Your task to perform on an android device: toggle javascript in the chrome app Image 0: 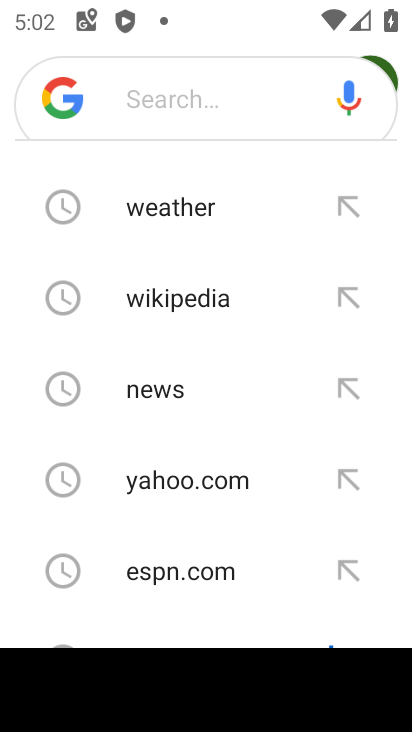
Step 0: press home button
Your task to perform on an android device: toggle javascript in the chrome app Image 1: 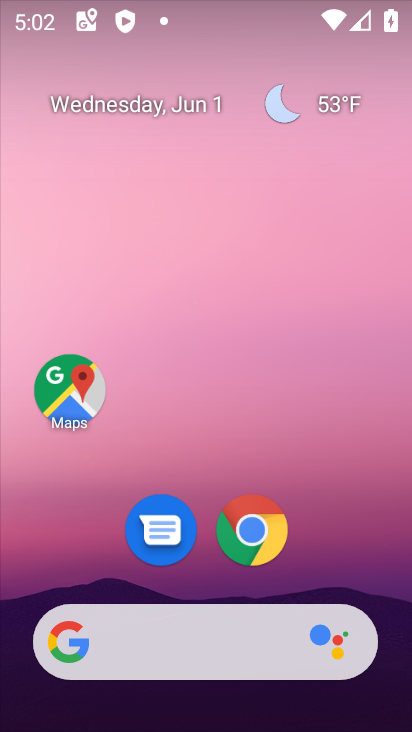
Step 1: click (254, 528)
Your task to perform on an android device: toggle javascript in the chrome app Image 2: 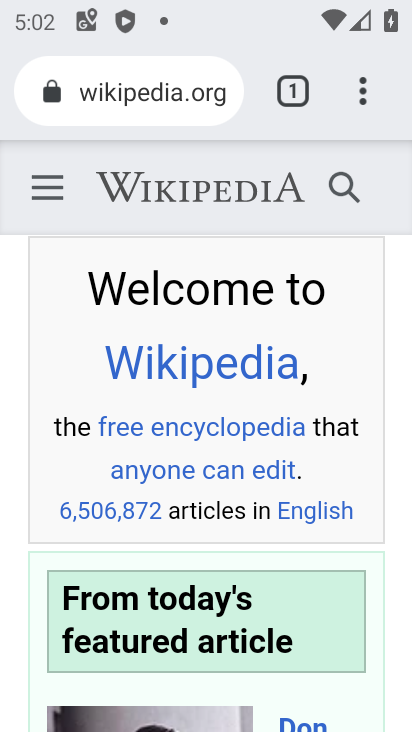
Step 2: click (360, 95)
Your task to perform on an android device: toggle javascript in the chrome app Image 3: 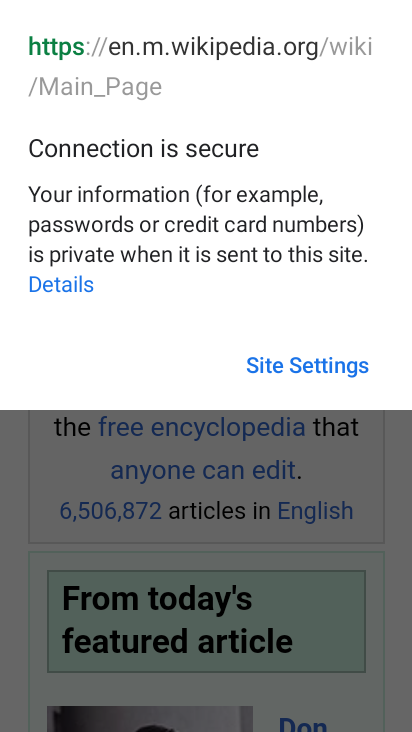
Step 3: click (398, 429)
Your task to perform on an android device: toggle javascript in the chrome app Image 4: 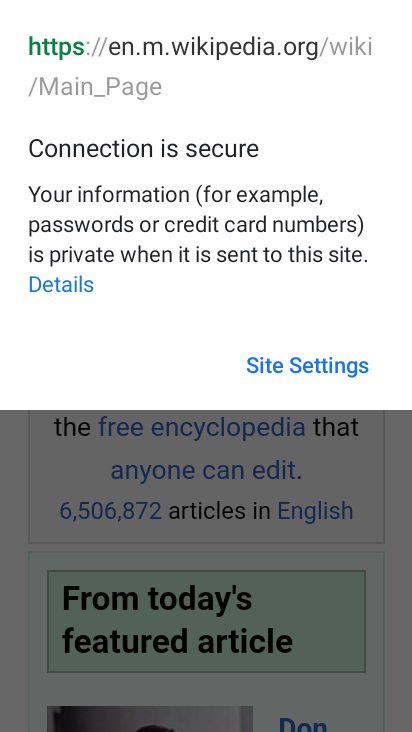
Step 4: click (371, 461)
Your task to perform on an android device: toggle javascript in the chrome app Image 5: 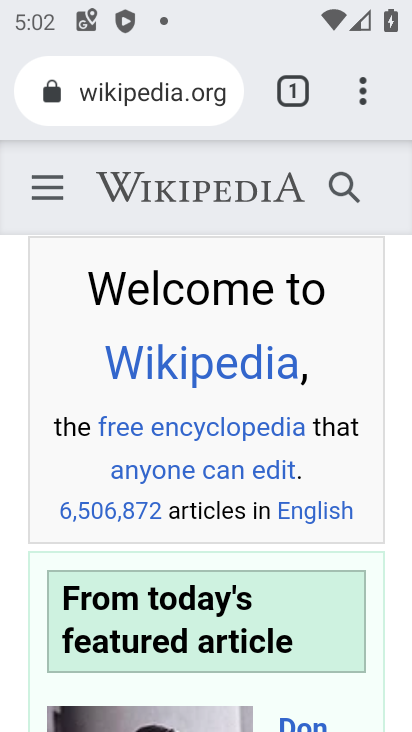
Step 5: click (363, 95)
Your task to perform on an android device: toggle javascript in the chrome app Image 6: 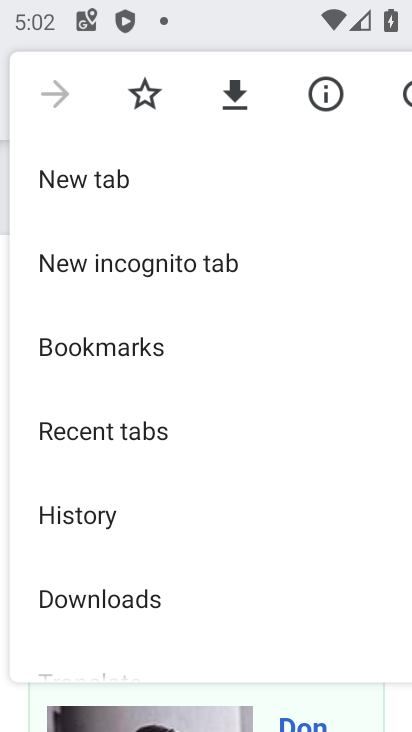
Step 6: drag from (134, 507) to (134, 301)
Your task to perform on an android device: toggle javascript in the chrome app Image 7: 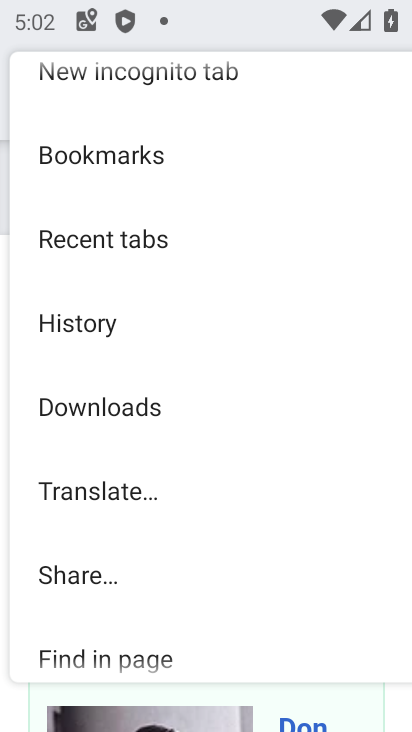
Step 7: drag from (130, 609) to (140, 270)
Your task to perform on an android device: toggle javascript in the chrome app Image 8: 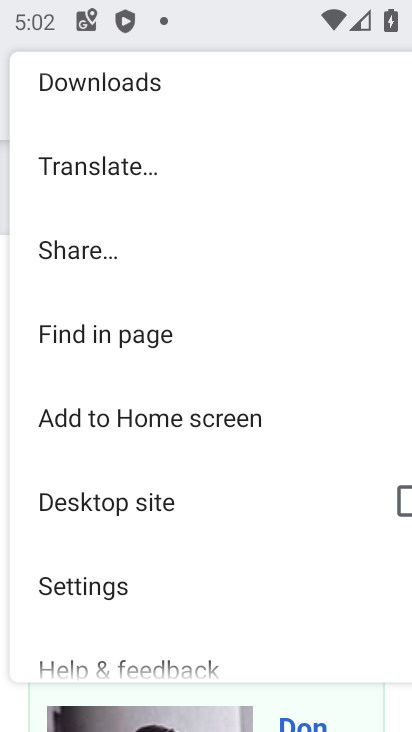
Step 8: click (112, 595)
Your task to perform on an android device: toggle javascript in the chrome app Image 9: 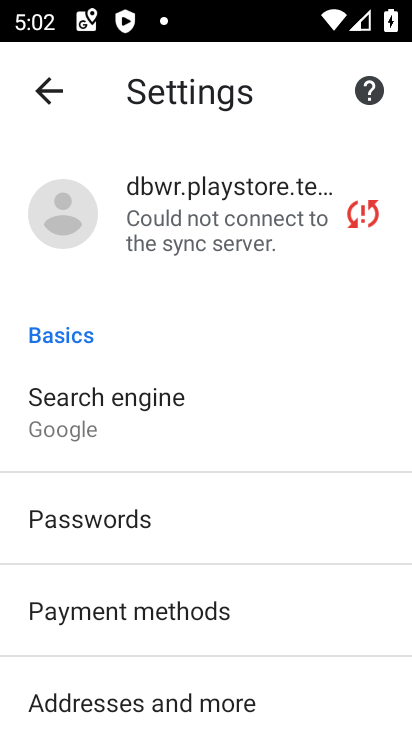
Step 9: drag from (191, 641) to (193, 340)
Your task to perform on an android device: toggle javascript in the chrome app Image 10: 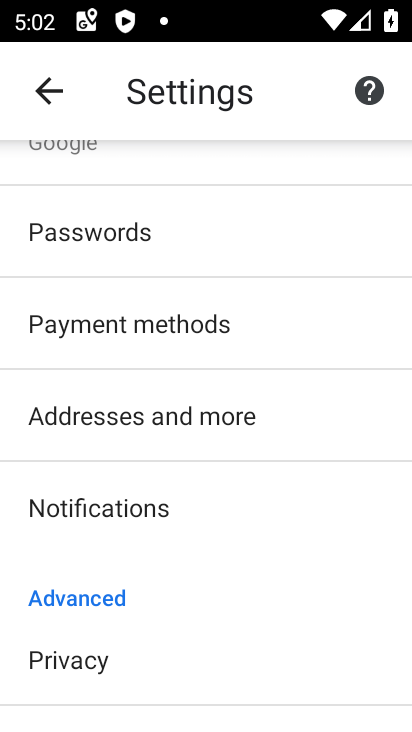
Step 10: drag from (171, 610) to (174, 310)
Your task to perform on an android device: toggle javascript in the chrome app Image 11: 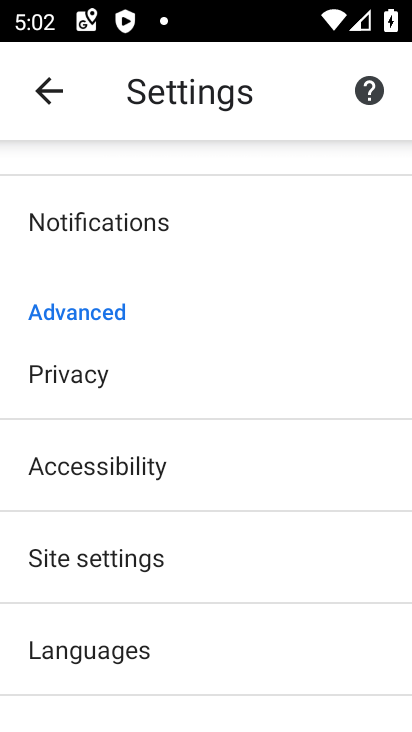
Step 11: click (128, 571)
Your task to perform on an android device: toggle javascript in the chrome app Image 12: 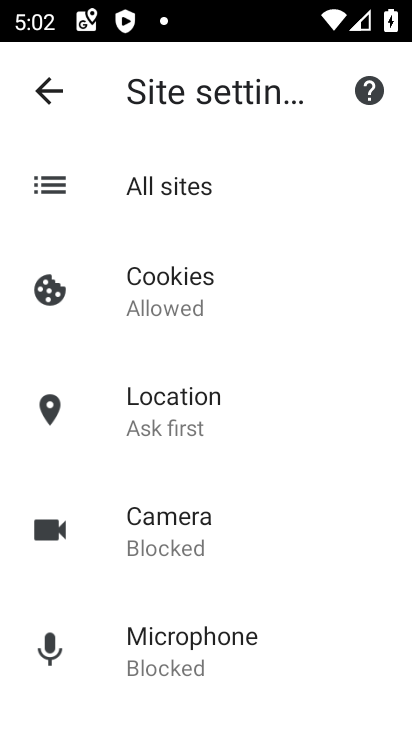
Step 12: drag from (185, 606) to (187, 386)
Your task to perform on an android device: toggle javascript in the chrome app Image 13: 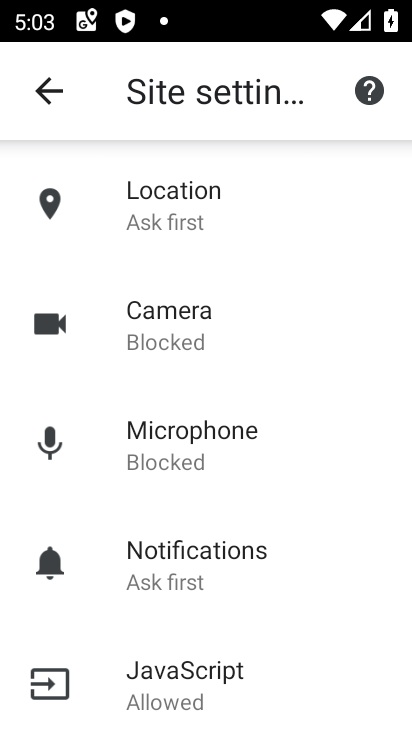
Step 13: click (199, 692)
Your task to perform on an android device: toggle javascript in the chrome app Image 14: 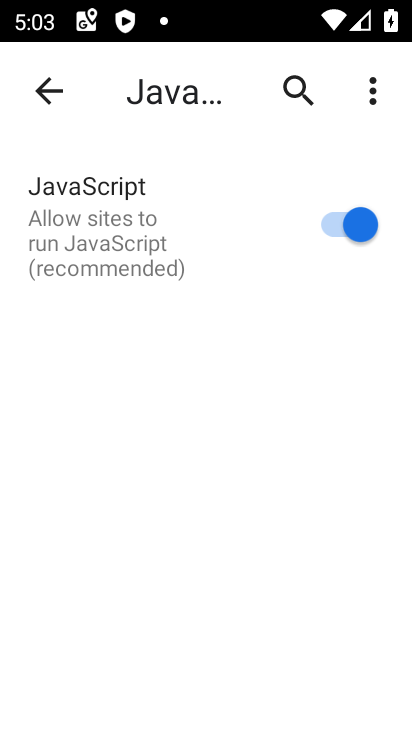
Step 14: click (330, 235)
Your task to perform on an android device: toggle javascript in the chrome app Image 15: 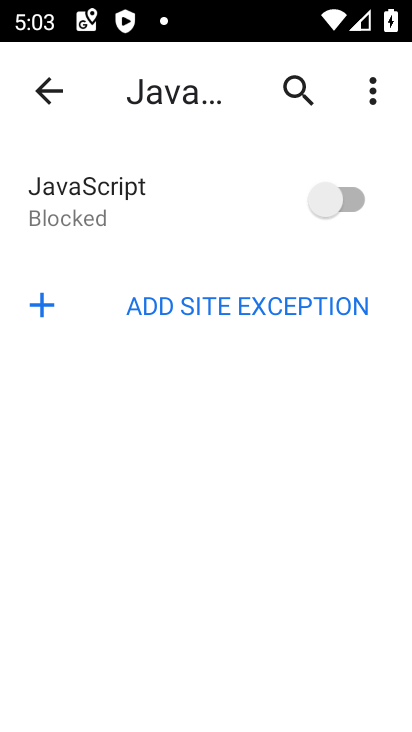
Step 15: task complete